Your task to perform on an android device: Open the calendar app, open the side menu, and click the "Day" option Image 0: 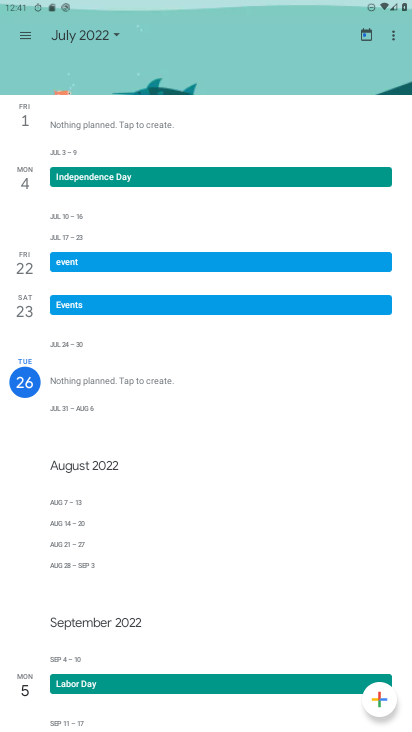
Step 0: press home button
Your task to perform on an android device: Open the calendar app, open the side menu, and click the "Day" option Image 1: 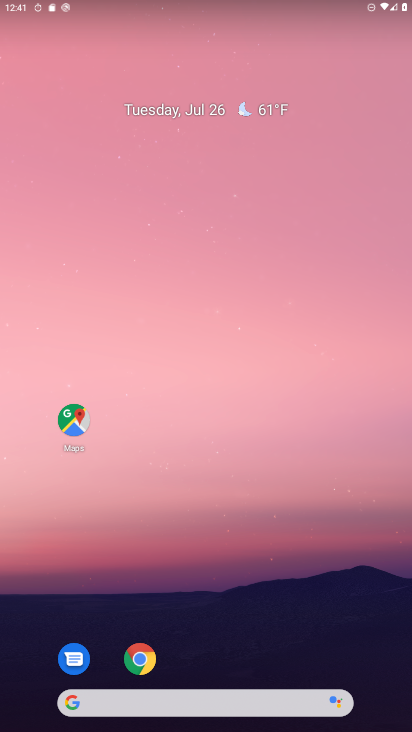
Step 1: drag from (12, 679) to (291, 94)
Your task to perform on an android device: Open the calendar app, open the side menu, and click the "Day" option Image 2: 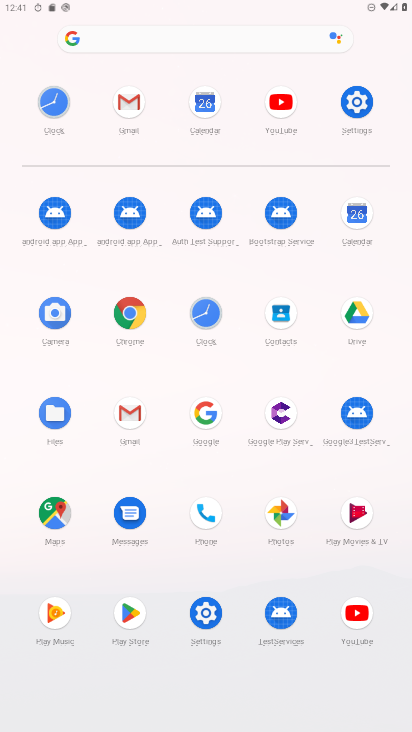
Step 2: click (352, 223)
Your task to perform on an android device: Open the calendar app, open the side menu, and click the "Day" option Image 3: 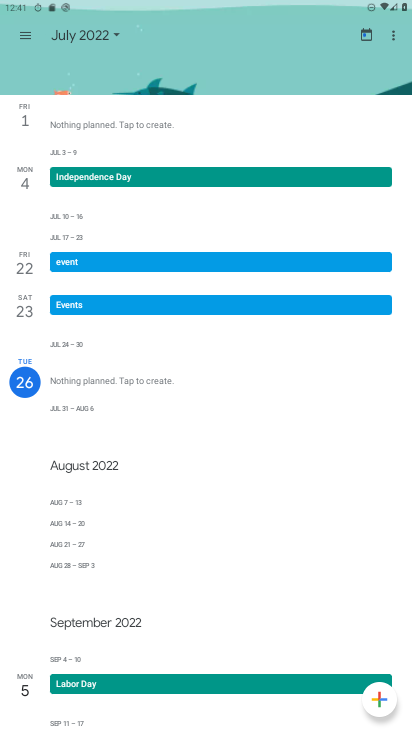
Step 3: click (8, 19)
Your task to perform on an android device: Open the calendar app, open the side menu, and click the "Day" option Image 4: 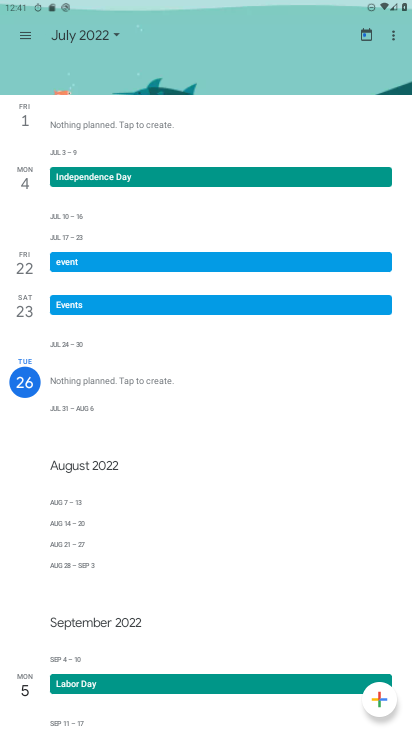
Step 4: click (22, 38)
Your task to perform on an android device: Open the calendar app, open the side menu, and click the "Day" option Image 5: 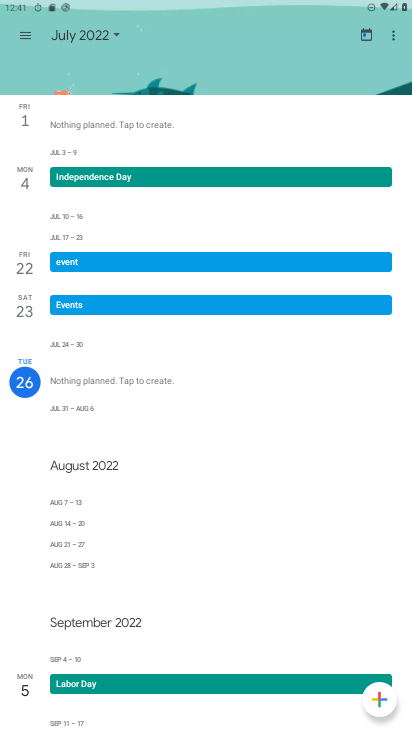
Step 5: click (29, 31)
Your task to perform on an android device: Open the calendar app, open the side menu, and click the "Day" option Image 6: 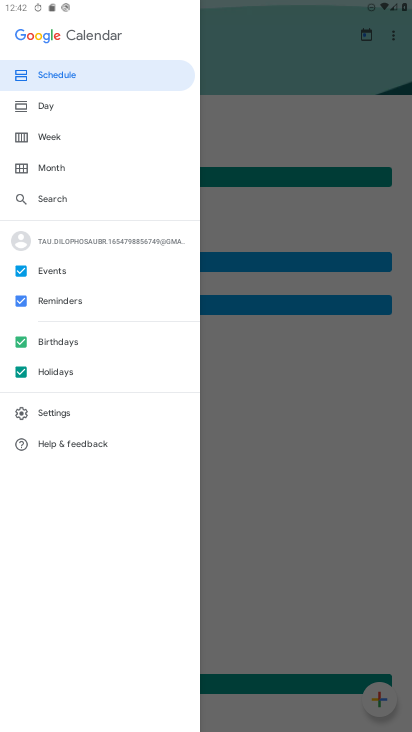
Step 6: click (50, 106)
Your task to perform on an android device: Open the calendar app, open the side menu, and click the "Day" option Image 7: 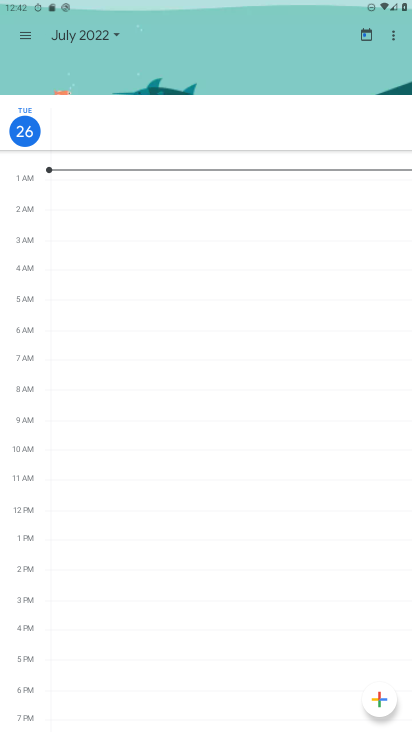
Step 7: task complete